Your task to perform on an android device: Open the phone app and click the voicemail tab. Image 0: 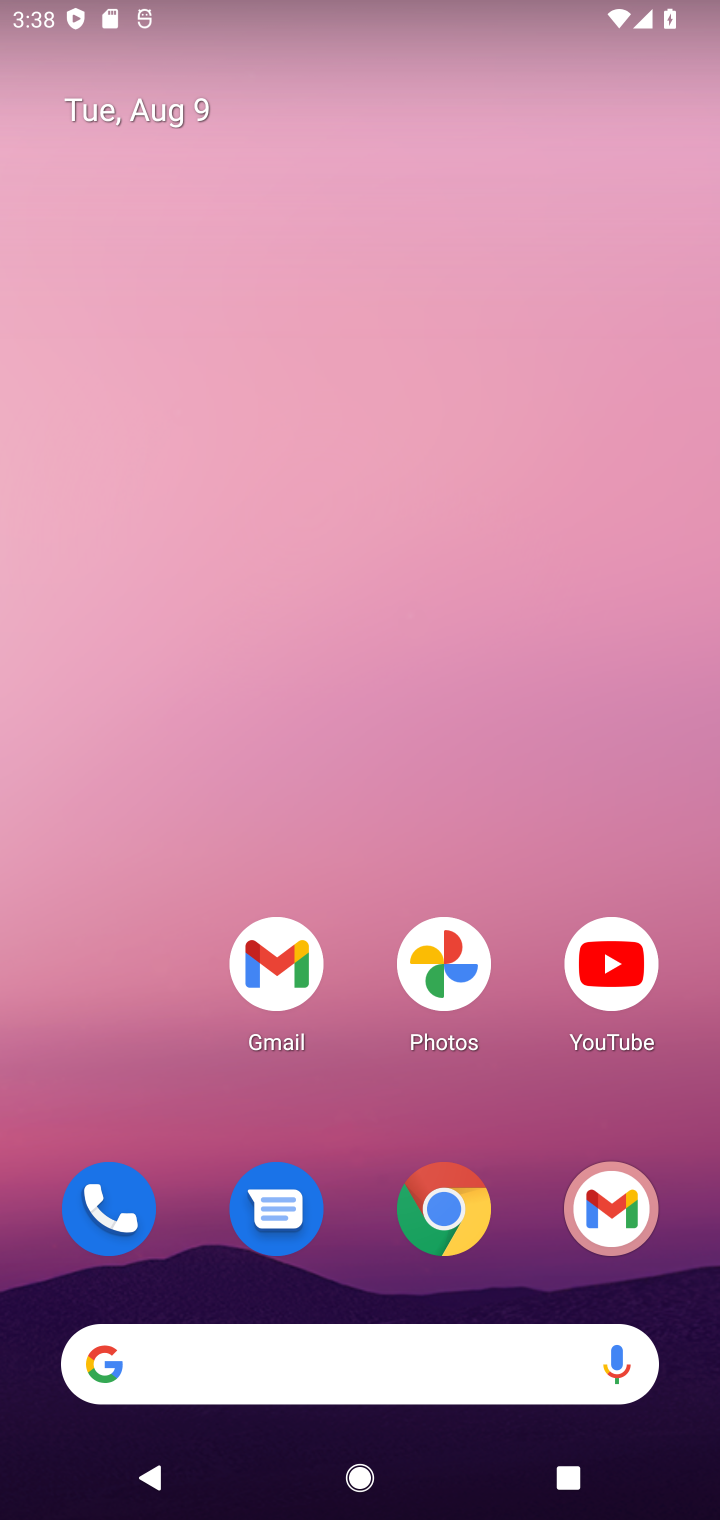
Step 0: drag from (191, 1132) to (126, 198)
Your task to perform on an android device: Open the phone app and click the voicemail tab. Image 1: 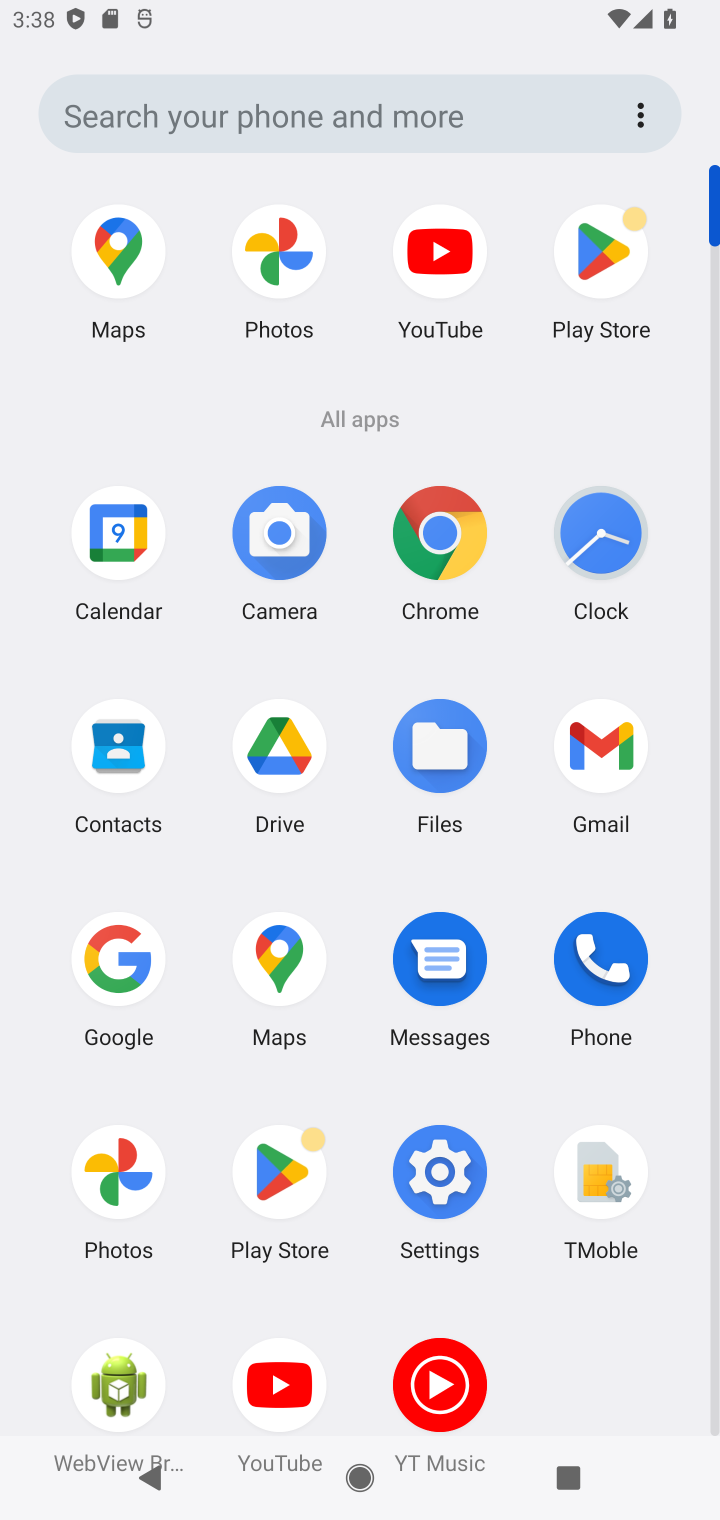
Step 1: click (604, 967)
Your task to perform on an android device: Open the phone app and click the voicemail tab. Image 2: 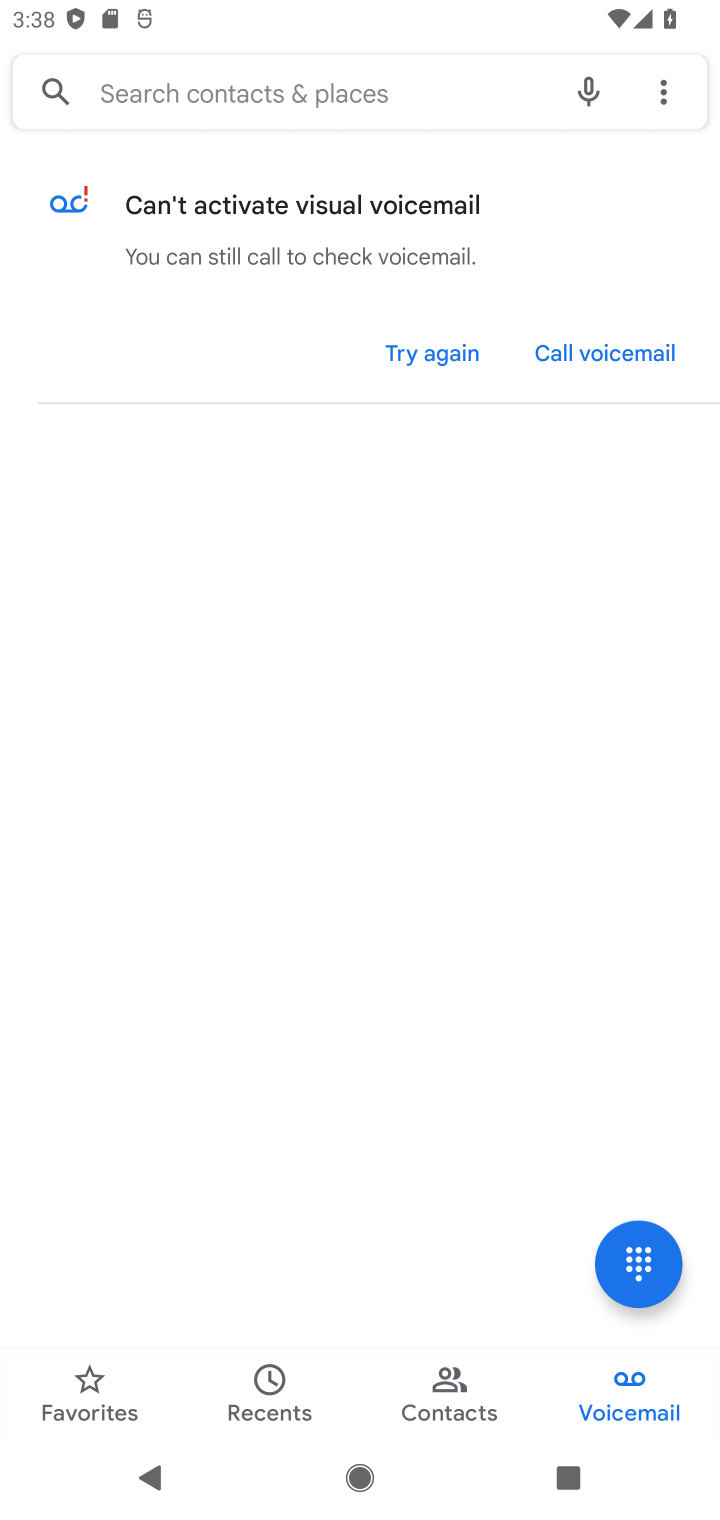
Step 2: task complete